Your task to perform on an android device: Go to Yahoo.com Image 0: 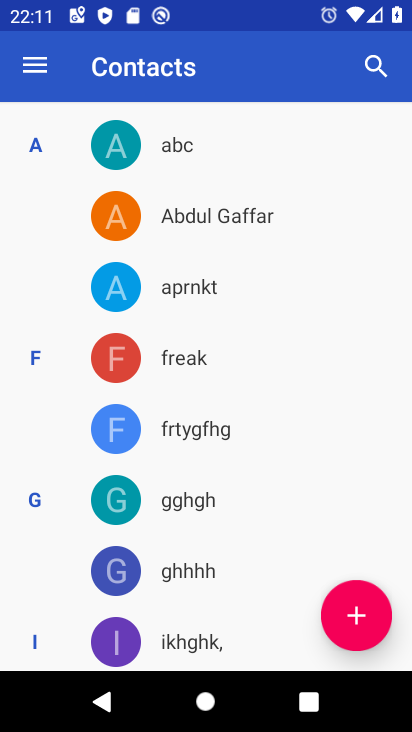
Step 0: press home button
Your task to perform on an android device: Go to Yahoo.com Image 1: 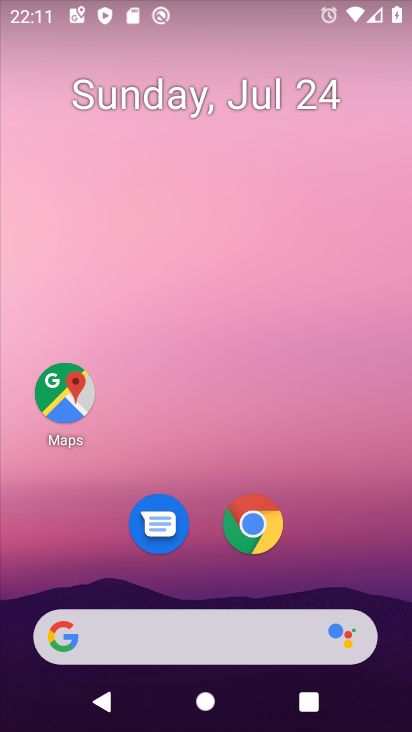
Step 1: drag from (243, 645) to (330, 157)
Your task to perform on an android device: Go to Yahoo.com Image 2: 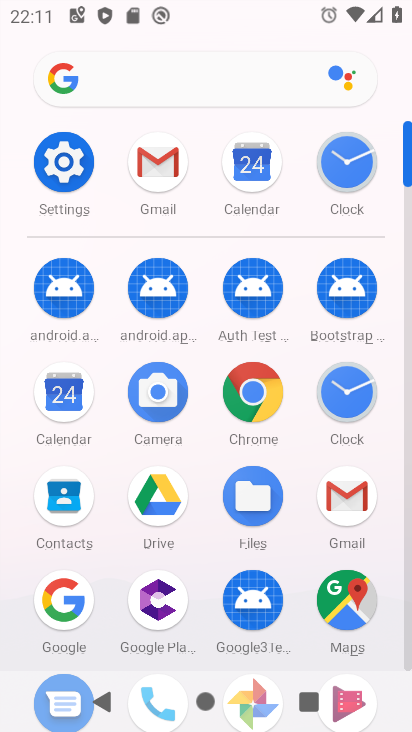
Step 2: click (254, 395)
Your task to perform on an android device: Go to Yahoo.com Image 3: 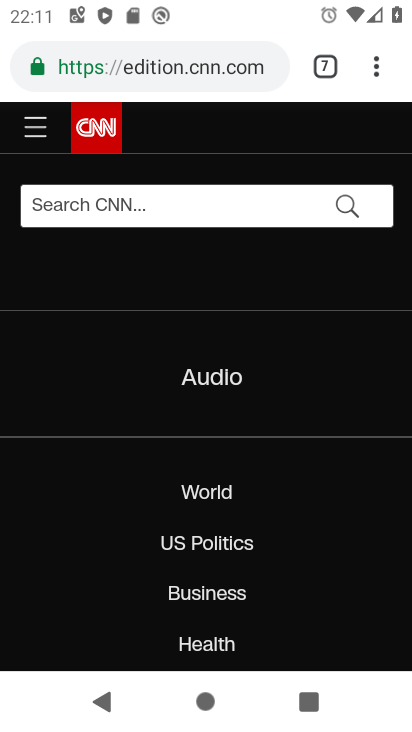
Step 3: drag from (379, 74) to (216, 128)
Your task to perform on an android device: Go to Yahoo.com Image 4: 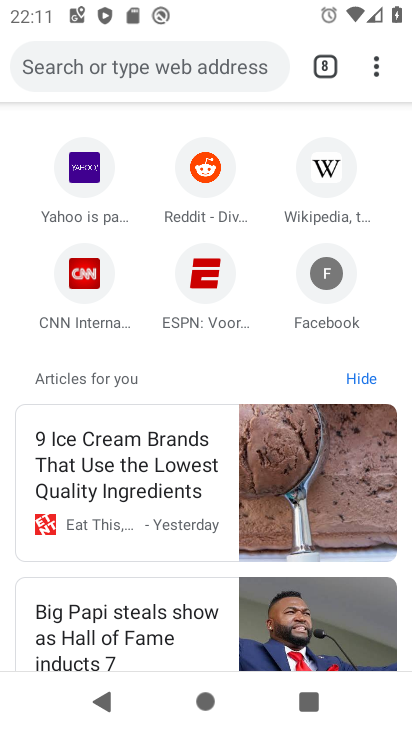
Step 4: click (92, 167)
Your task to perform on an android device: Go to Yahoo.com Image 5: 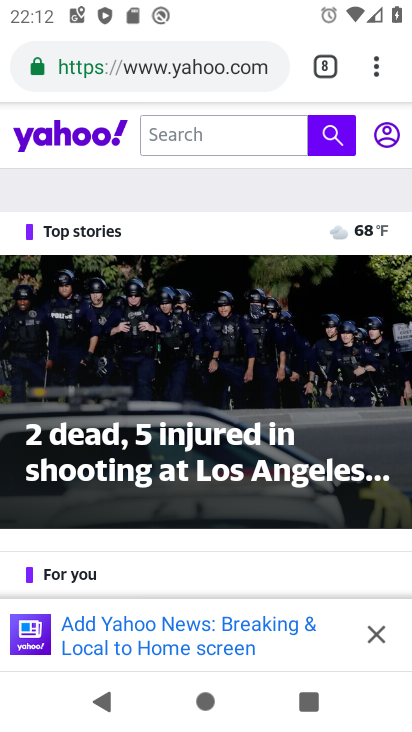
Step 5: task complete